Your task to perform on an android device: Open Chrome and go to settings Image 0: 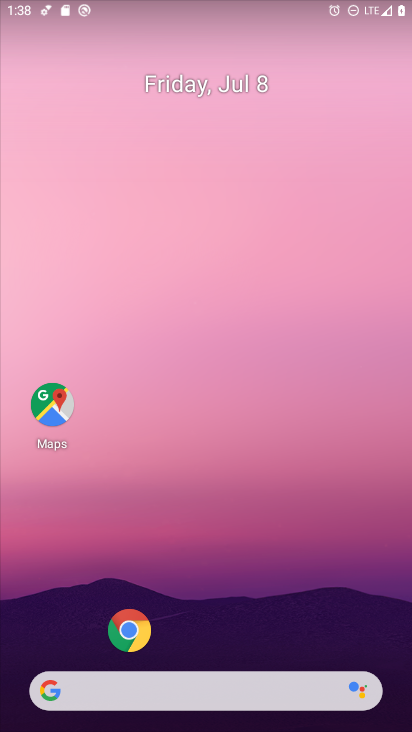
Step 0: drag from (307, 704) to (356, 54)
Your task to perform on an android device: Open Chrome and go to settings Image 1: 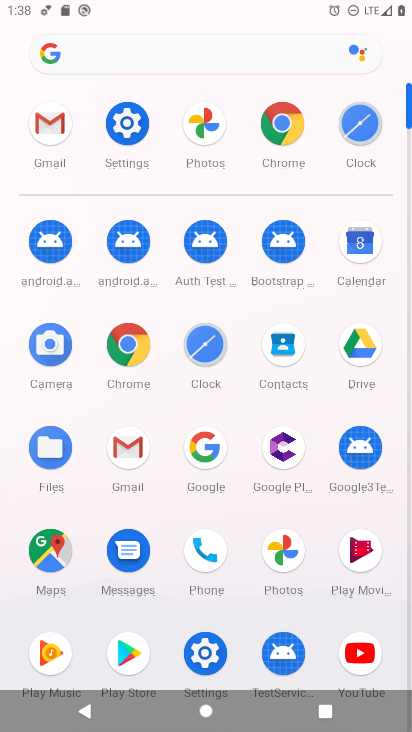
Step 1: click (116, 344)
Your task to perform on an android device: Open Chrome and go to settings Image 2: 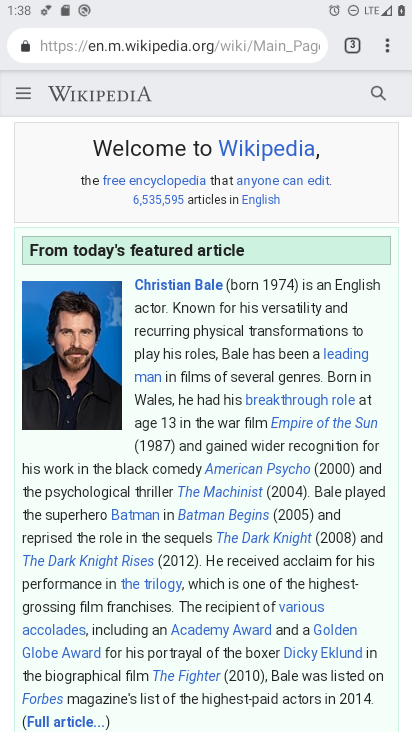
Step 2: task complete